Your task to perform on an android device: toggle notifications settings in the gmail app Image 0: 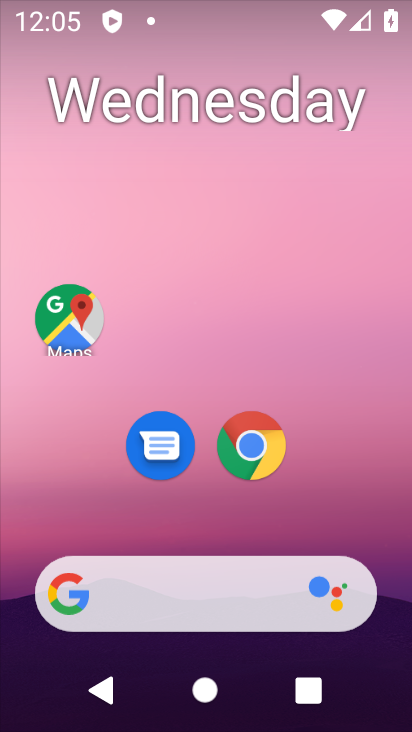
Step 0: click (249, 450)
Your task to perform on an android device: toggle notifications settings in the gmail app Image 1: 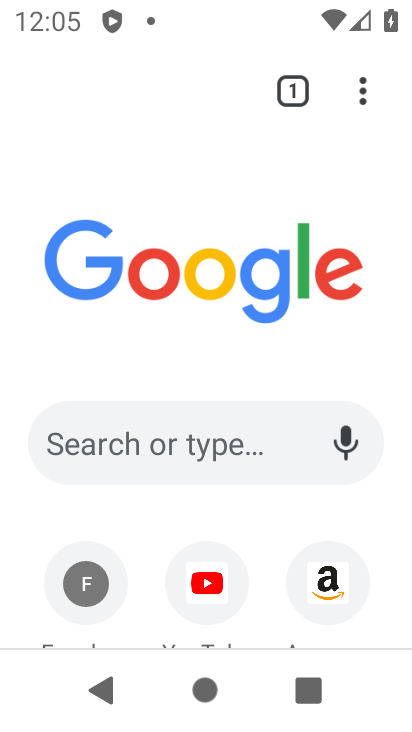
Step 1: click (170, 450)
Your task to perform on an android device: toggle notifications settings in the gmail app Image 2: 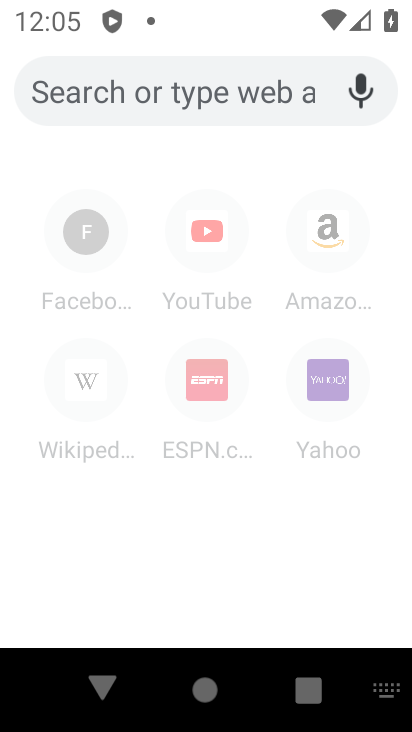
Step 2: type "ESPN"
Your task to perform on an android device: toggle notifications settings in the gmail app Image 3: 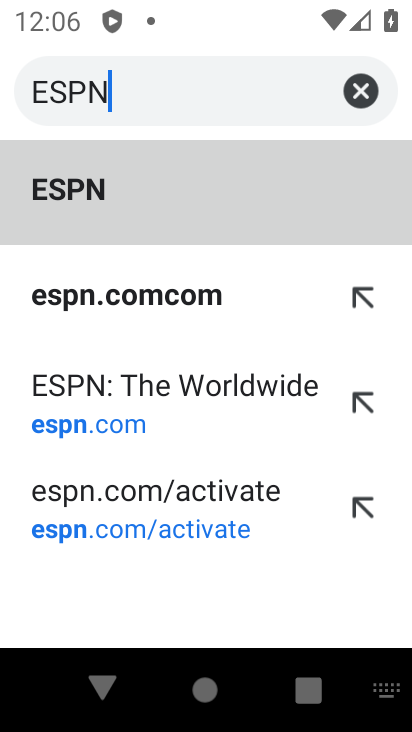
Step 3: press home button
Your task to perform on an android device: toggle notifications settings in the gmail app Image 4: 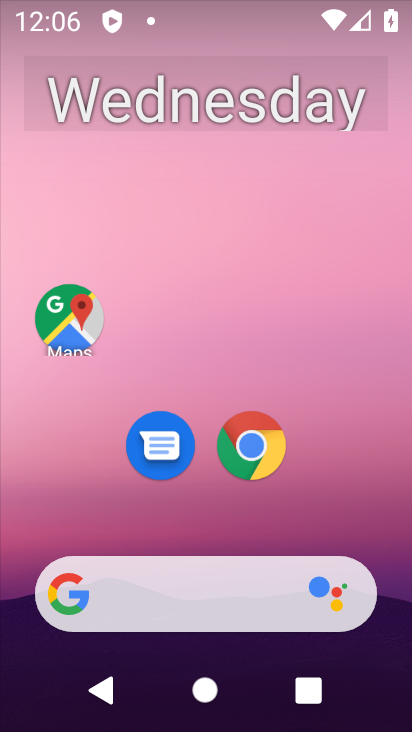
Step 4: drag from (201, 495) to (283, 130)
Your task to perform on an android device: toggle notifications settings in the gmail app Image 5: 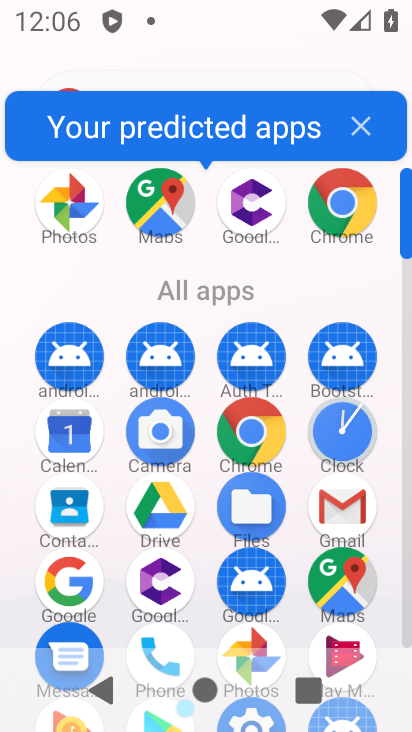
Step 5: click (344, 517)
Your task to perform on an android device: toggle notifications settings in the gmail app Image 6: 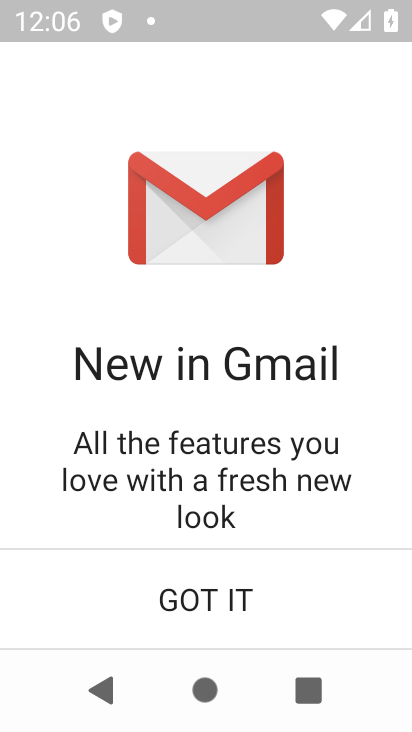
Step 6: click (200, 598)
Your task to perform on an android device: toggle notifications settings in the gmail app Image 7: 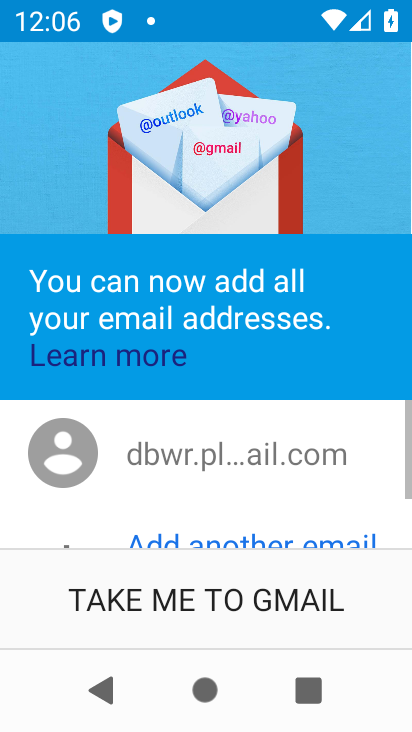
Step 7: click (194, 586)
Your task to perform on an android device: toggle notifications settings in the gmail app Image 8: 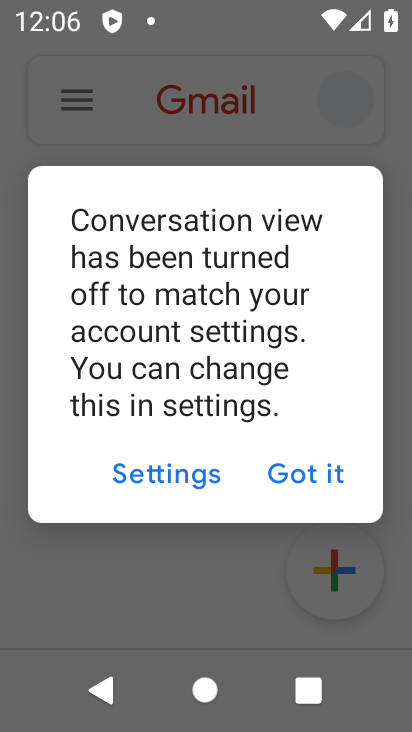
Step 8: click (327, 486)
Your task to perform on an android device: toggle notifications settings in the gmail app Image 9: 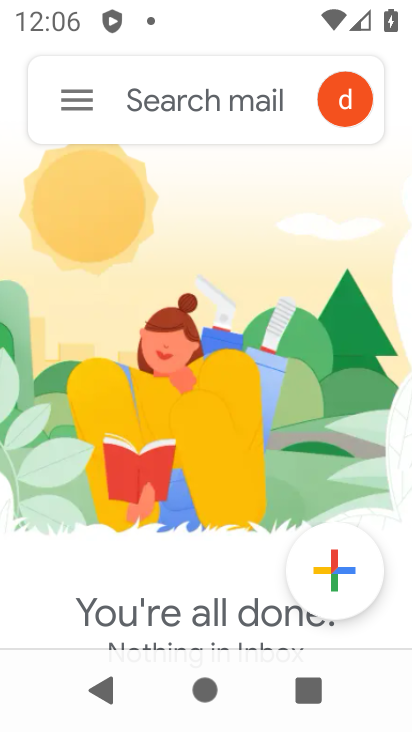
Step 9: click (69, 108)
Your task to perform on an android device: toggle notifications settings in the gmail app Image 10: 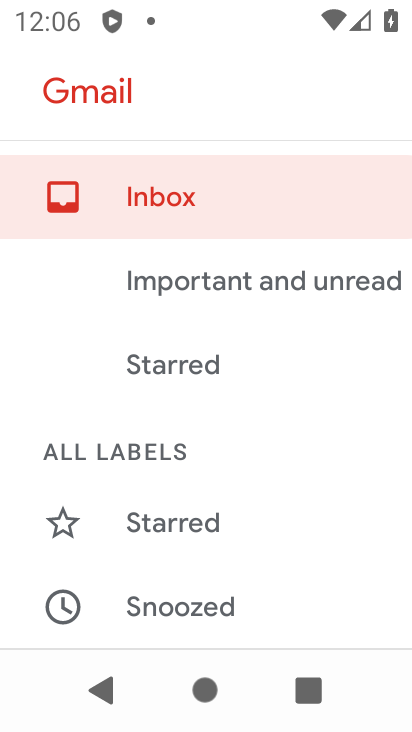
Step 10: drag from (287, 596) to (315, 335)
Your task to perform on an android device: toggle notifications settings in the gmail app Image 11: 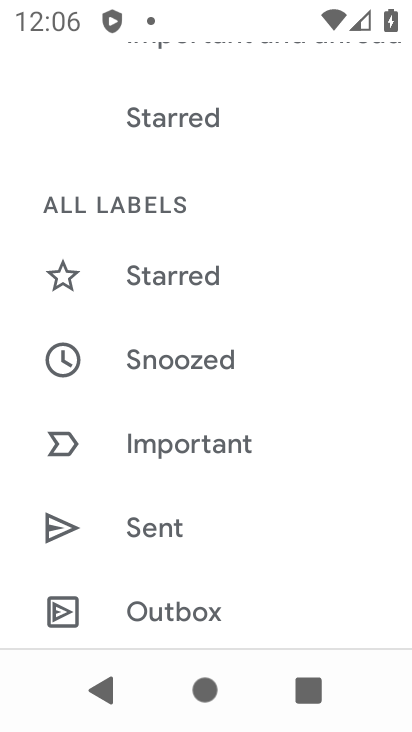
Step 11: drag from (286, 602) to (317, 318)
Your task to perform on an android device: toggle notifications settings in the gmail app Image 12: 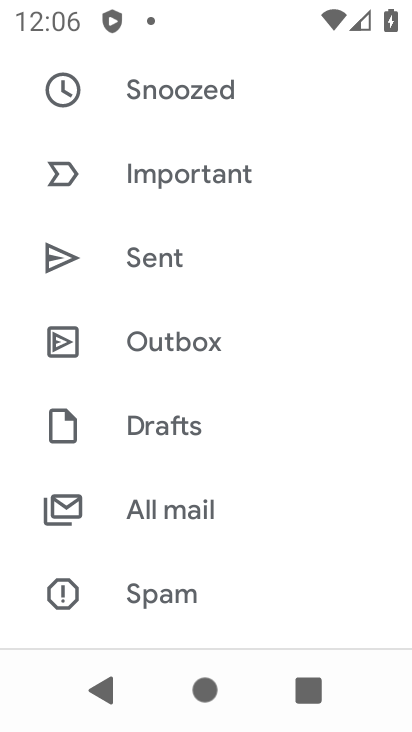
Step 12: drag from (232, 588) to (303, 286)
Your task to perform on an android device: toggle notifications settings in the gmail app Image 13: 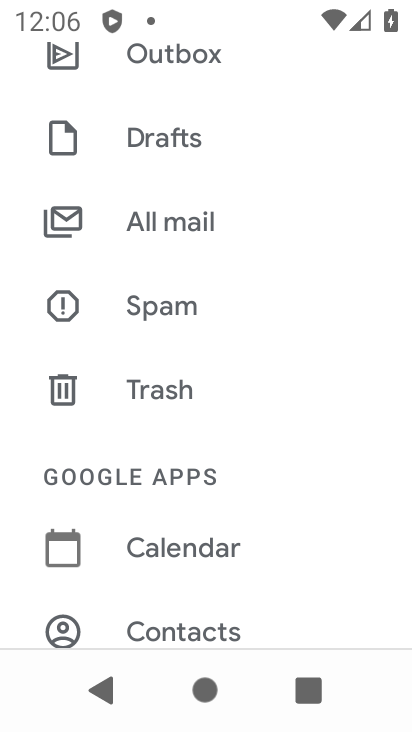
Step 13: drag from (228, 619) to (295, 312)
Your task to perform on an android device: toggle notifications settings in the gmail app Image 14: 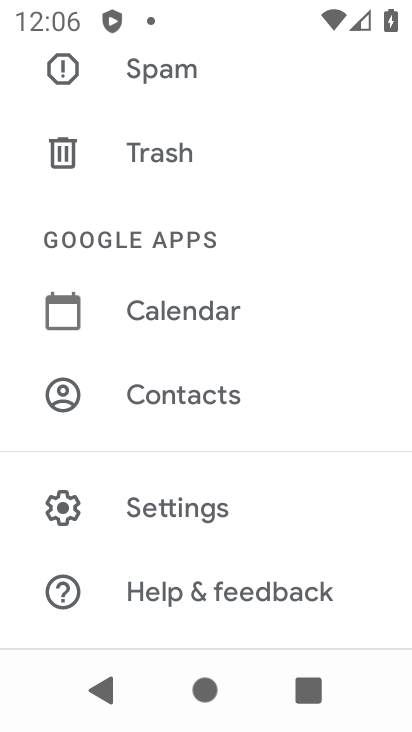
Step 14: click (174, 510)
Your task to perform on an android device: toggle notifications settings in the gmail app Image 15: 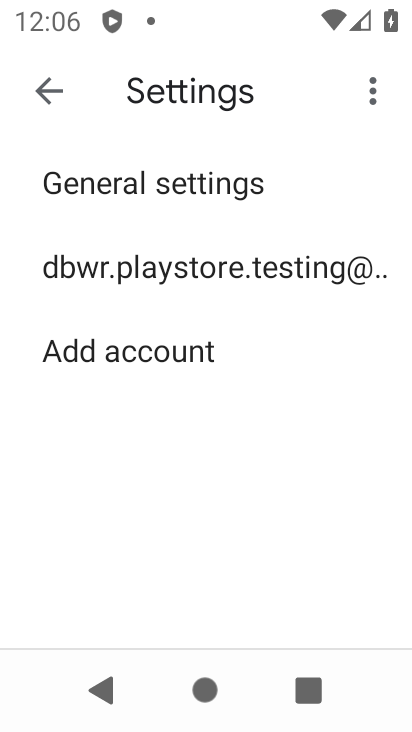
Step 15: click (279, 270)
Your task to perform on an android device: toggle notifications settings in the gmail app Image 16: 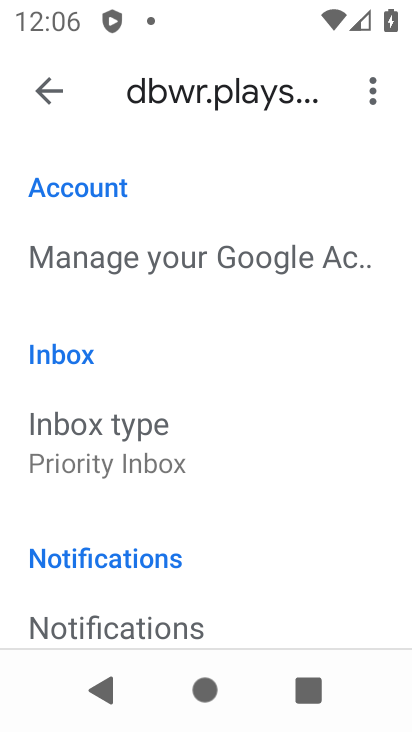
Step 16: drag from (222, 608) to (259, 373)
Your task to perform on an android device: toggle notifications settings in the gmail app Image 17: 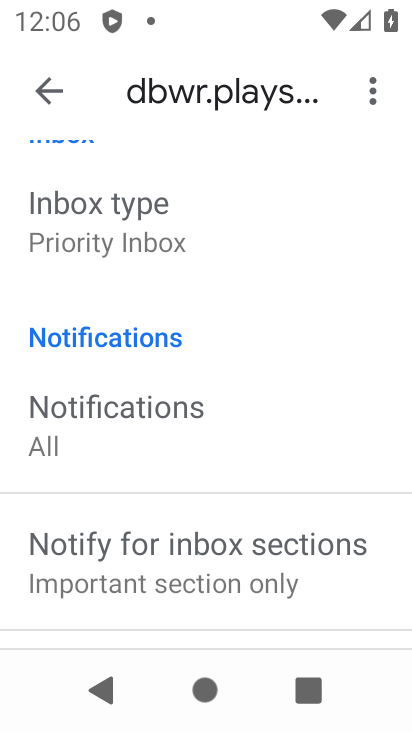
Step 17: drag from (239, 489) to (317, 293)
Your task to perform on an android device: toggle notifications settings in the gmail app Image 18: 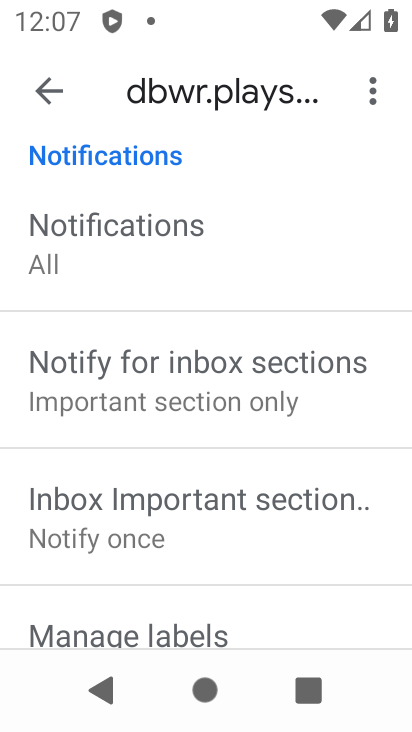
Step 18: drag from (299, 576) to (310, 399)
Your task to perform on an android device: toggle notifications settings in the gmail app Image 19: 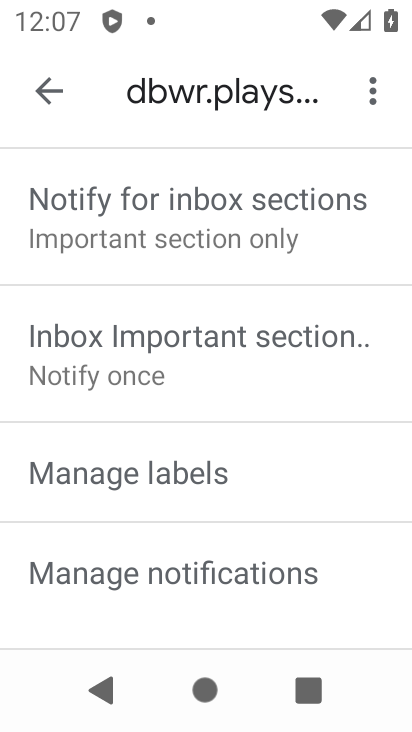
Step 19: click (198, 574)
Your task to perform on an android device: toggle notifications settings in the gmail app Image 20: 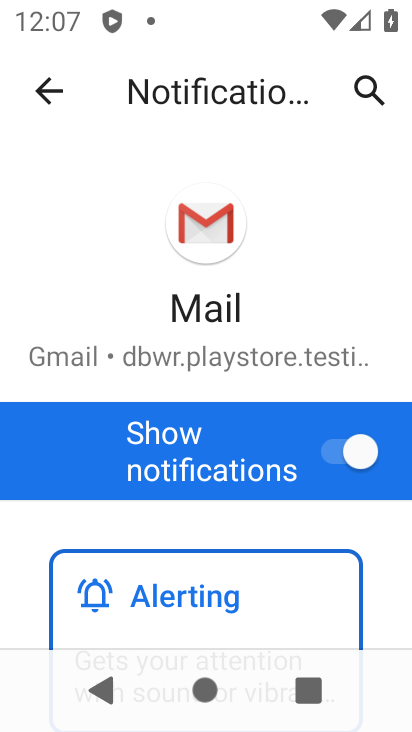
Step 20: click (320, 464)
Your task to perform on an android device: toggle notifications settings in the gmail app Image 21: 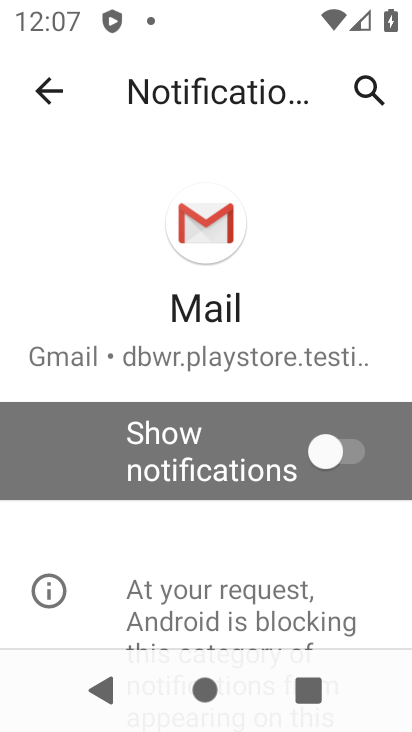
Step 21: task complete